Your task to perform on an android device: show emergency info Image 0: 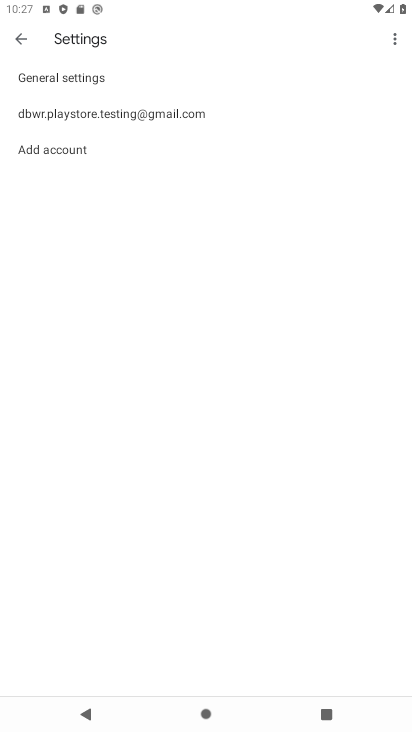
Step 0: task complete